Your task to perform on an android device: open a bookmark in the chrome app Image 0: 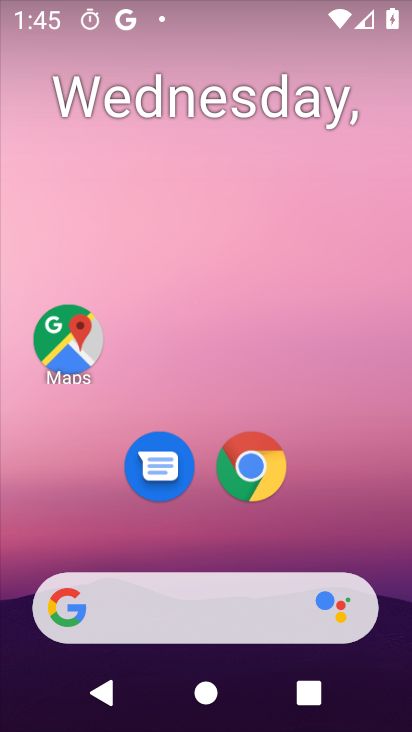
Step 0: click (250, 469)
Your task to perform on an android device: open a bookmark in the chrome app Image 1: 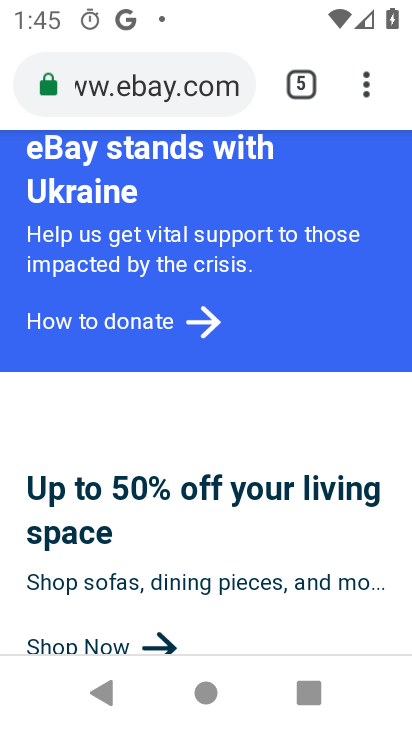
Step 1: click (356, 69)
Your task to perform on an android device: open a bookmark in the chrome app Image 2: 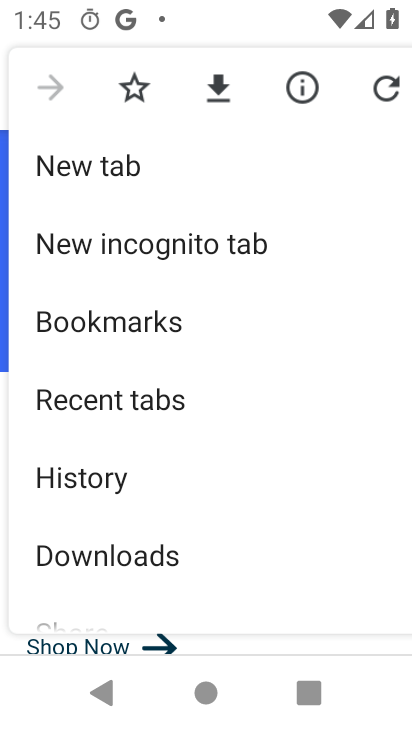
Step 2: click (197, 320)
Your task to perform on an android device: open a bookmark in the chrome app Image 3: 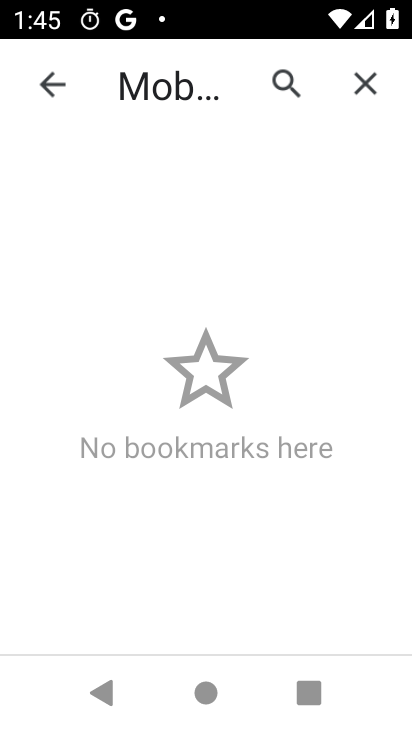
Step 3: task complete